Your task to perform on an android device: open app "Google Photos" (install if not already installed) Image 0: 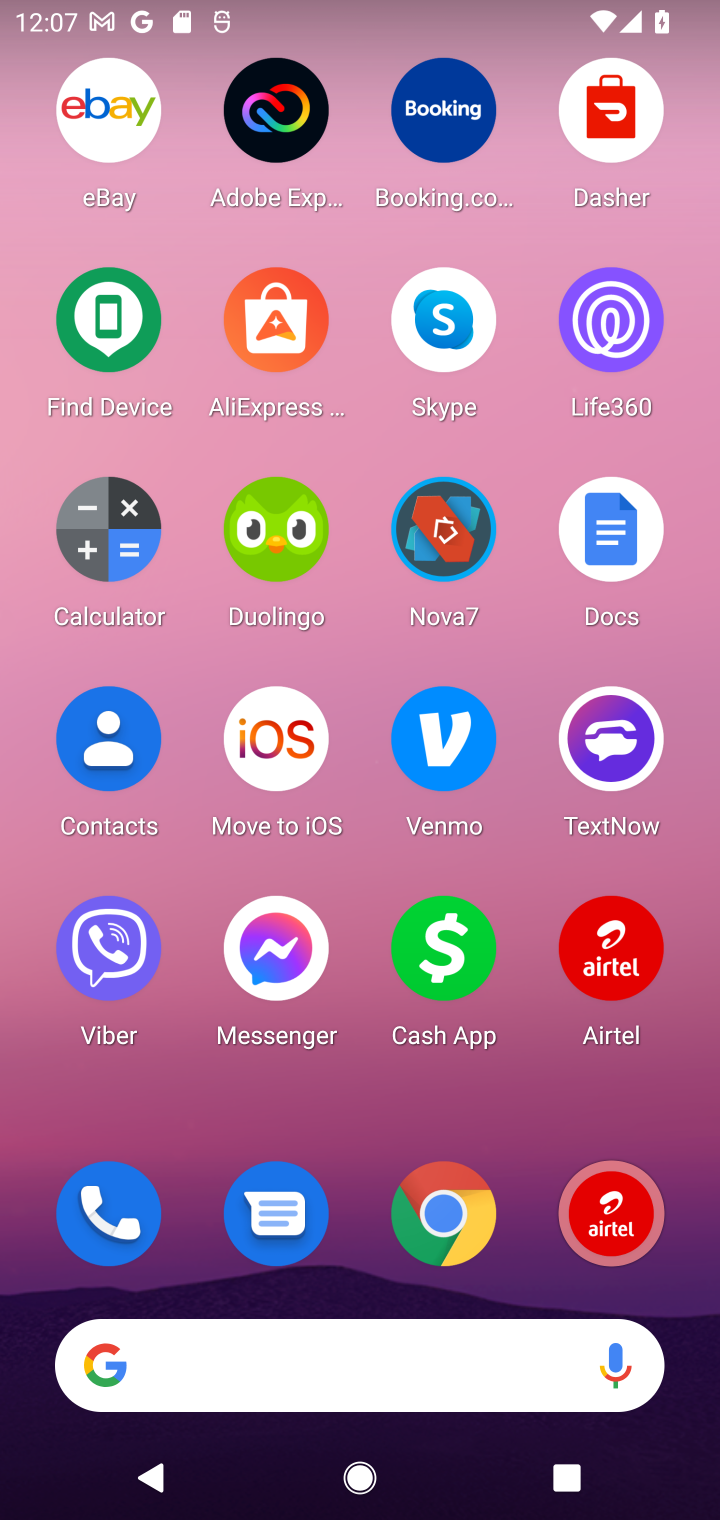
Step 0: drag from (289, 1357) to (517, 182)
Your task to perform on an android device: open app "Google Photos" (install if not already installed) Image 1: 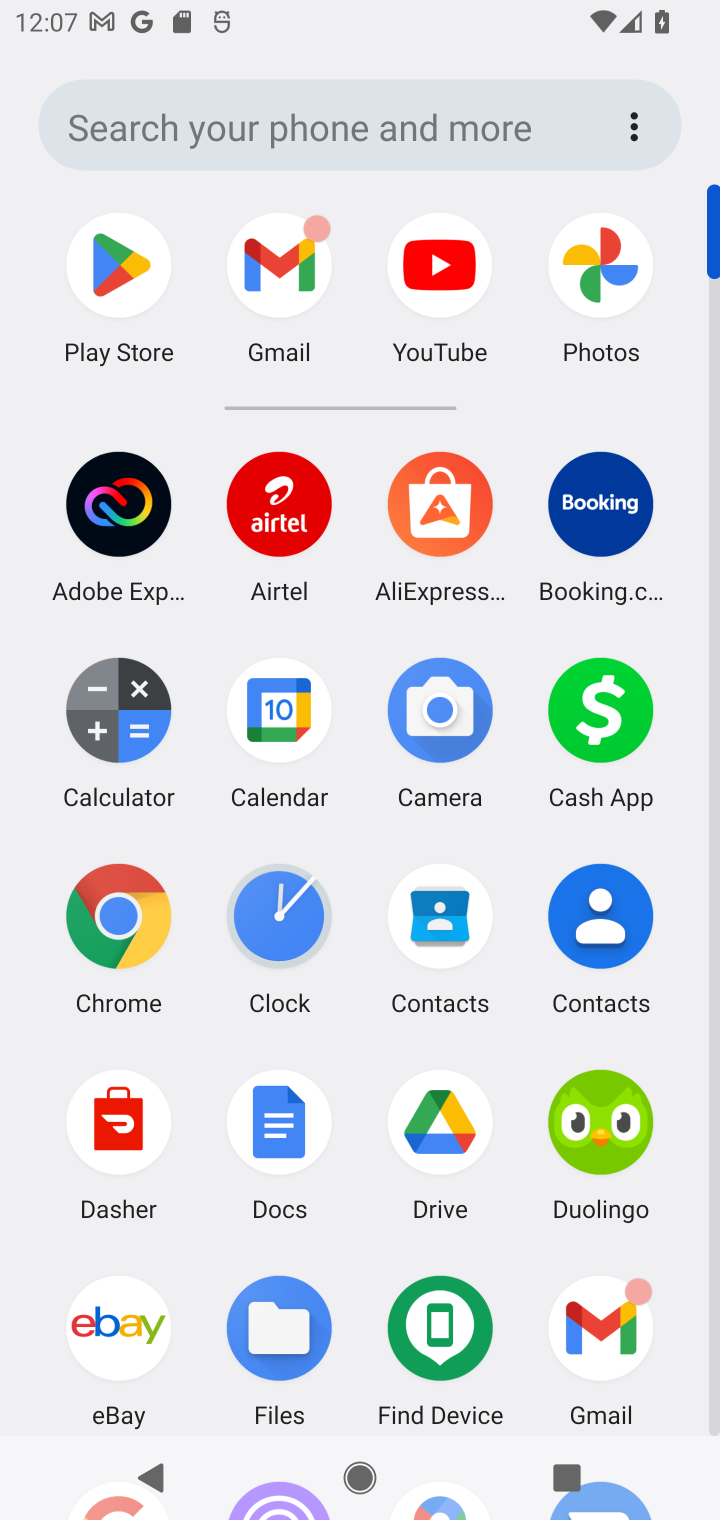
Step 1: click (115, 279)
Your task to perform on an android device: open app "Google Photos" (install if not already installed) Image 2: 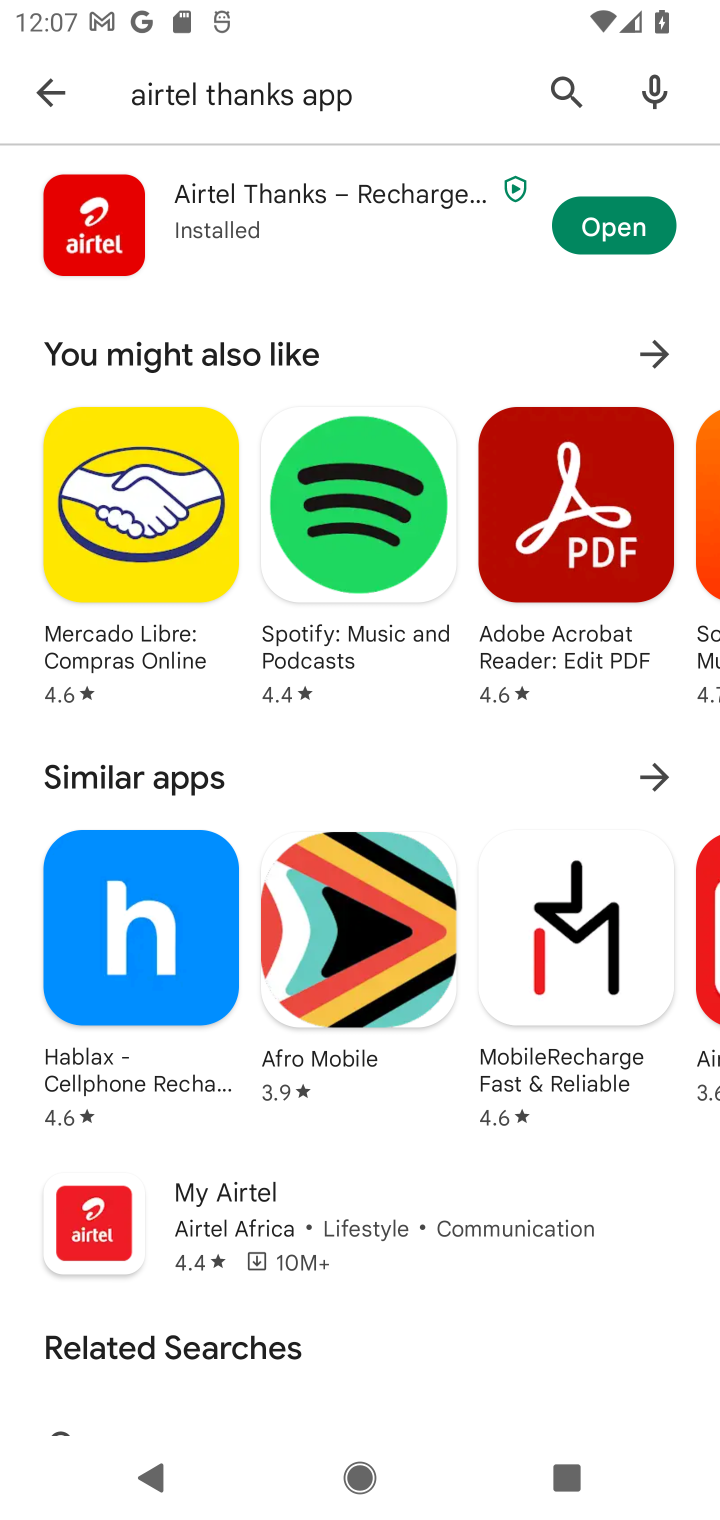
Step 2: press back button
Your task to perform on an android device: open app "Google Photos" (install if not already installed) Image 3: 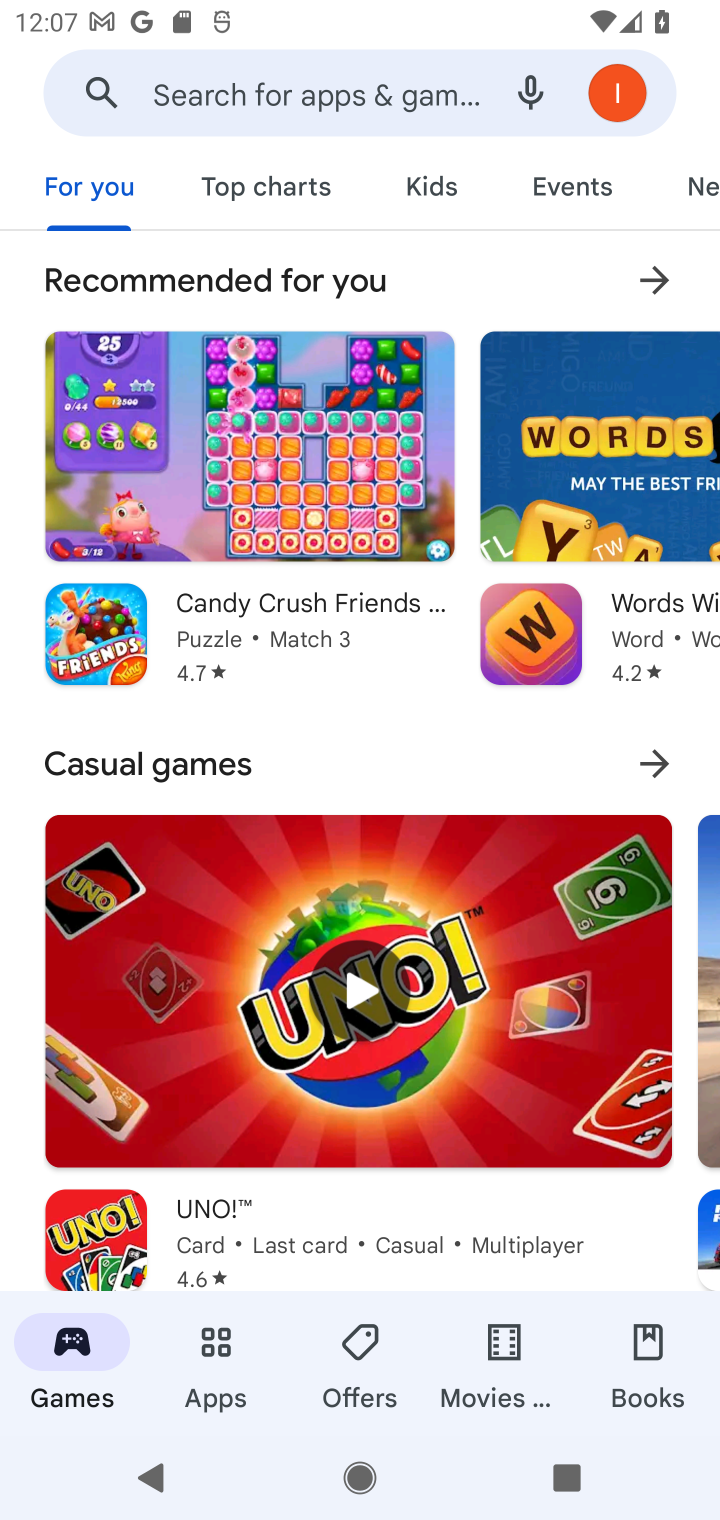
Step 3: click (332, 93)
Your task to perform on an android device: open app "Google Photos" (install if not already installed) Image 4: 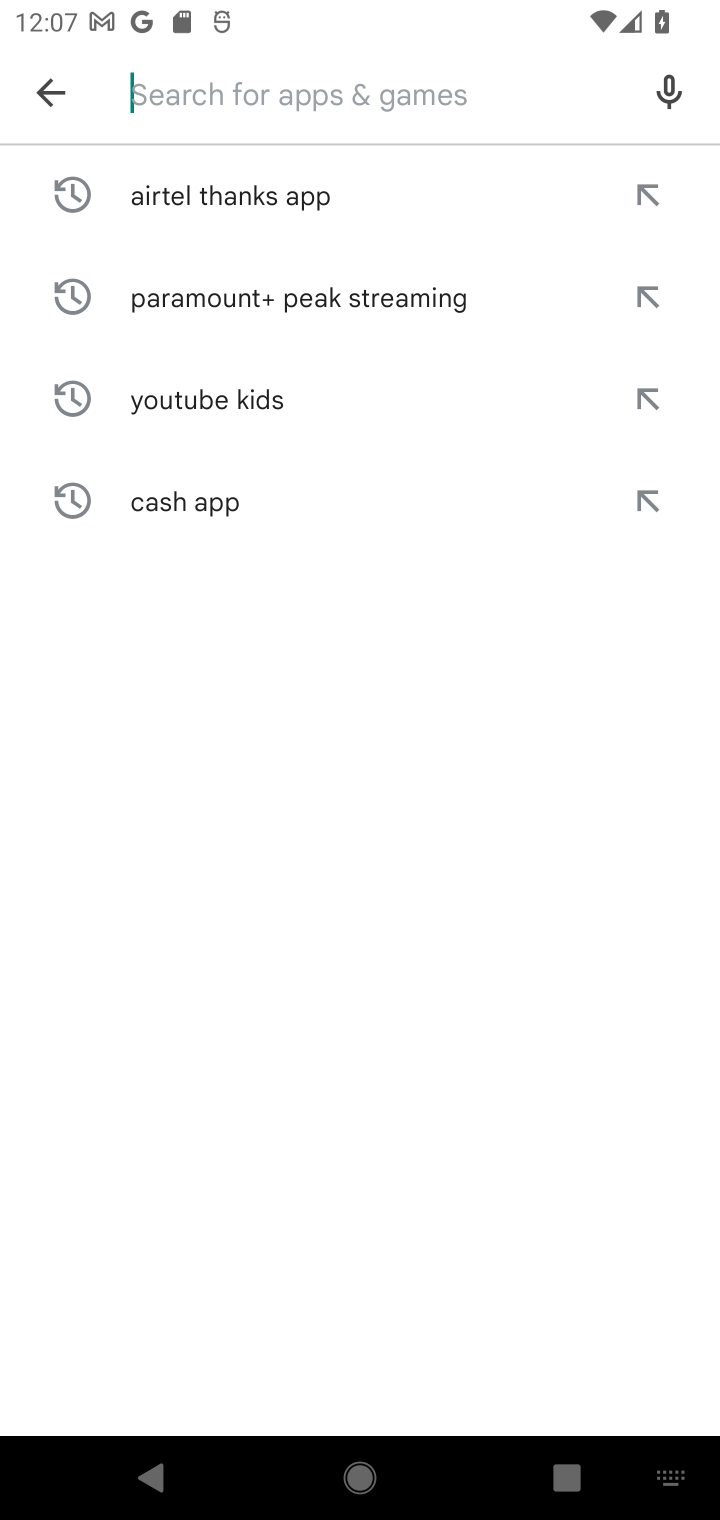
Step 4: click (179, 77)
Your task to perform on an android device: open app "Google Photos" (install if not already installed) Image 5: 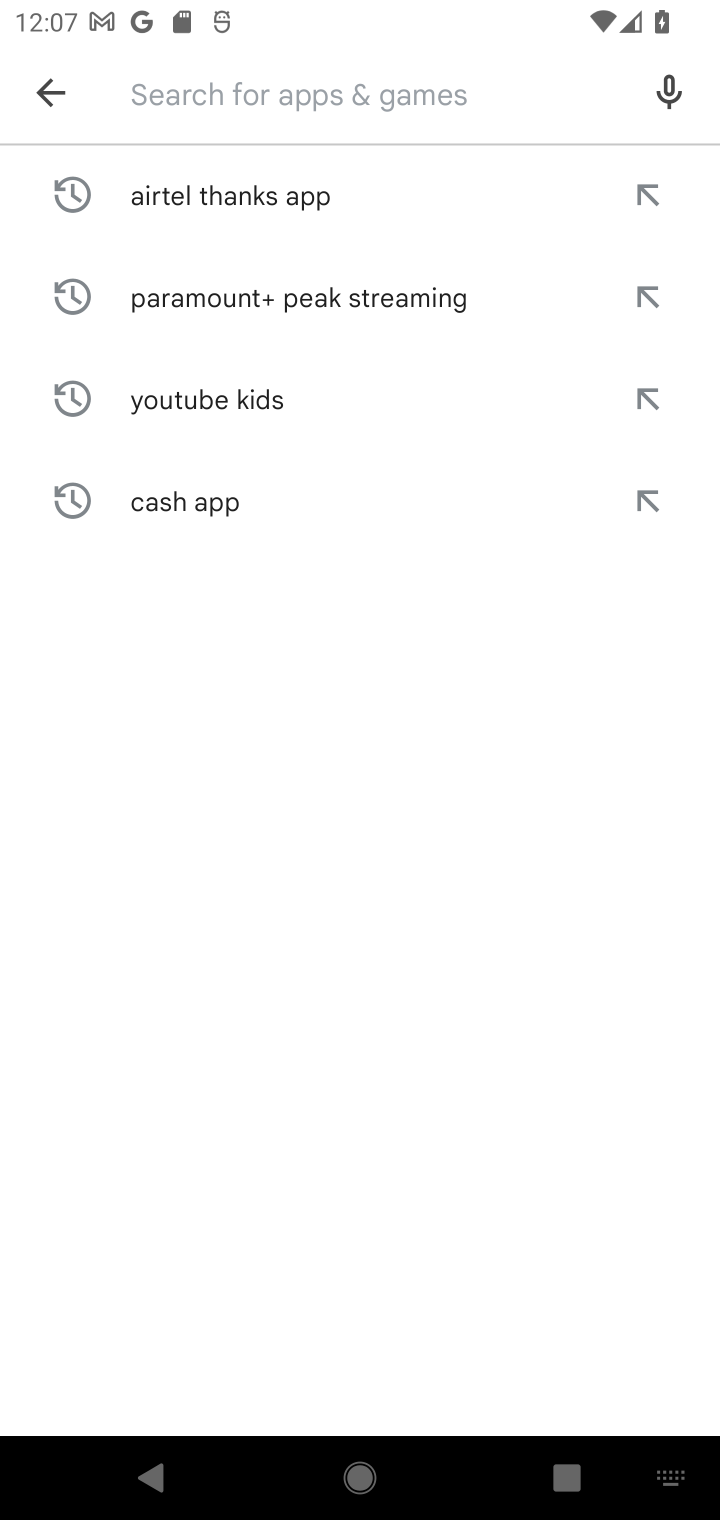
Step 5: type "Google Photos"
Your task to perform on an android device: open app "Google Photos" (install if not already installed) Image 6: 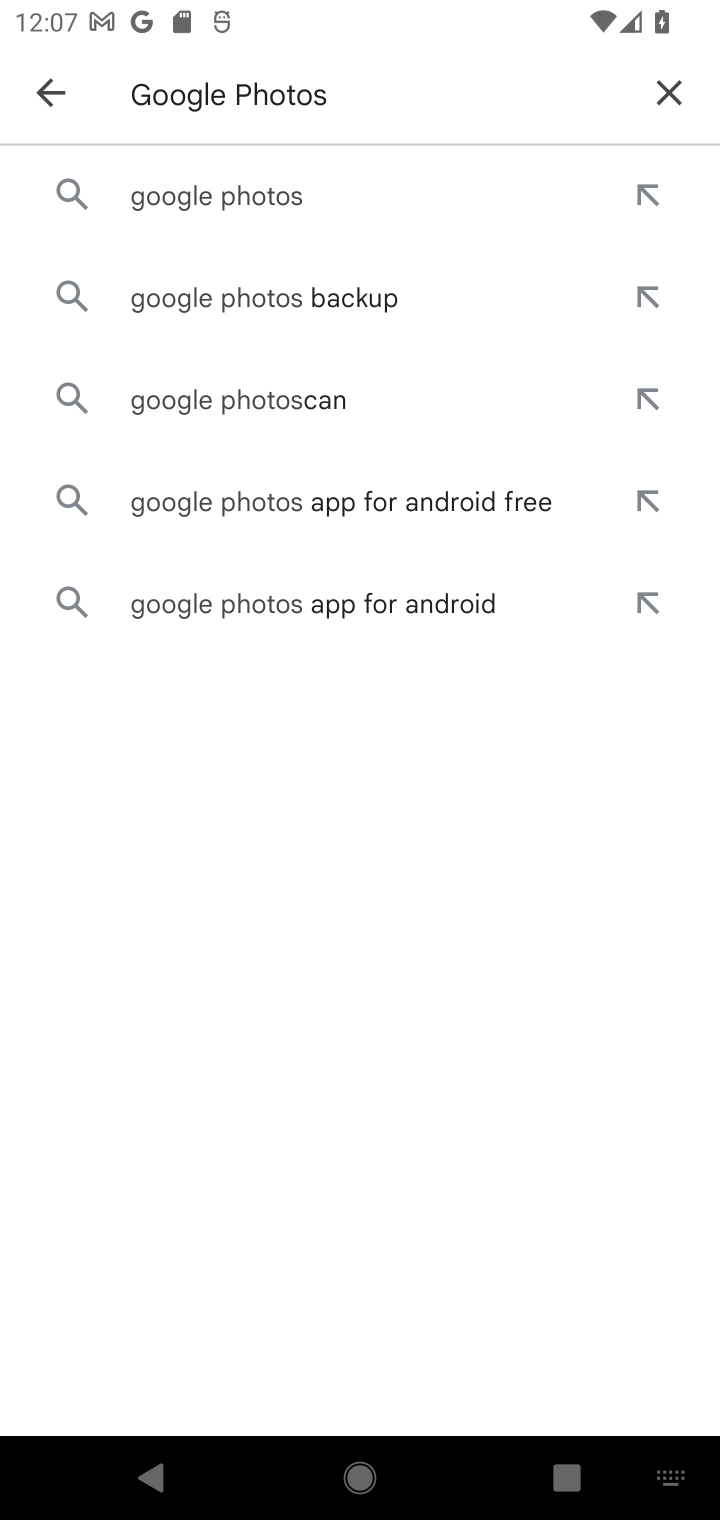
Step 6: click (207, 193)
Your task to perform on an android device: open app "Google Photos" (install if not already installed) Image 7: 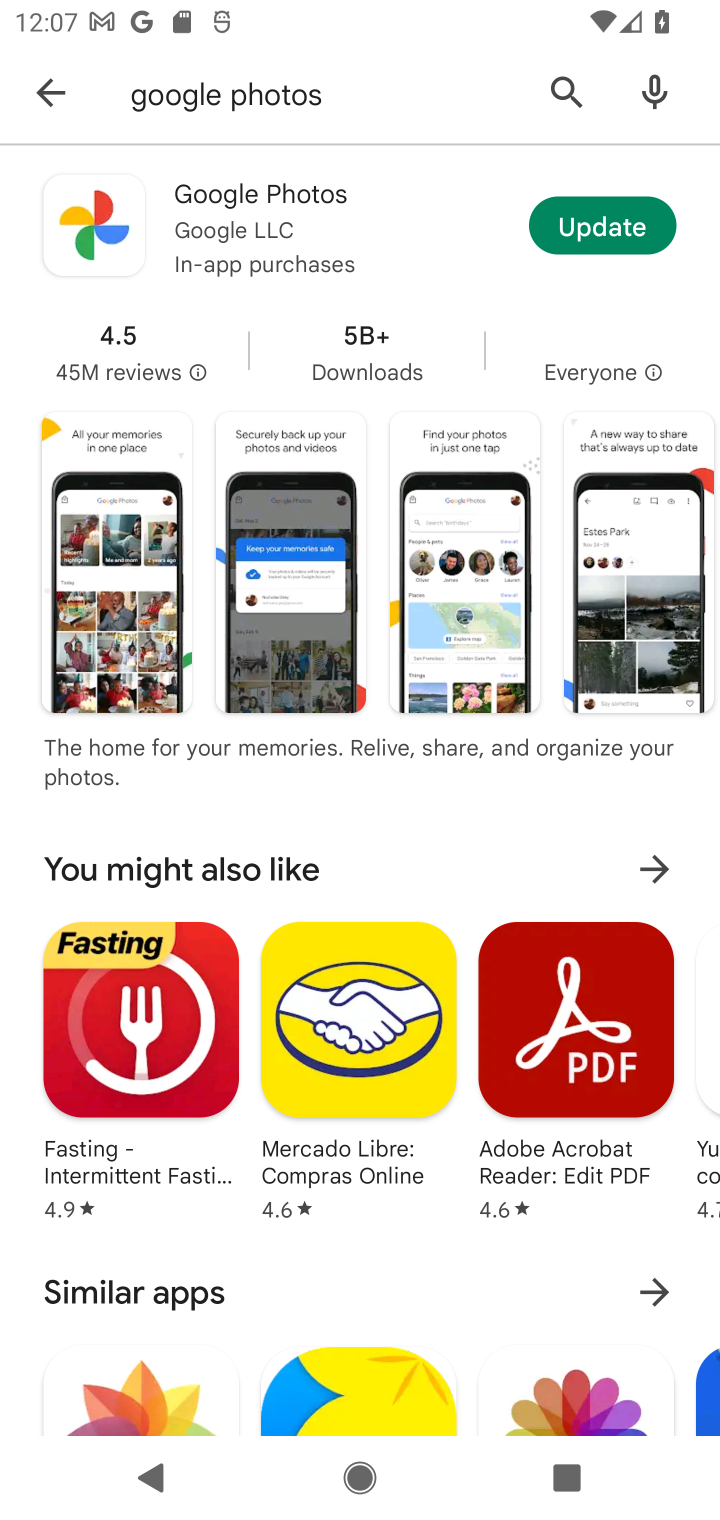
Step 7: click (245, 189)
Your task to perform on an android device: open app "Google Photos" (install if not already installed) Image 8: 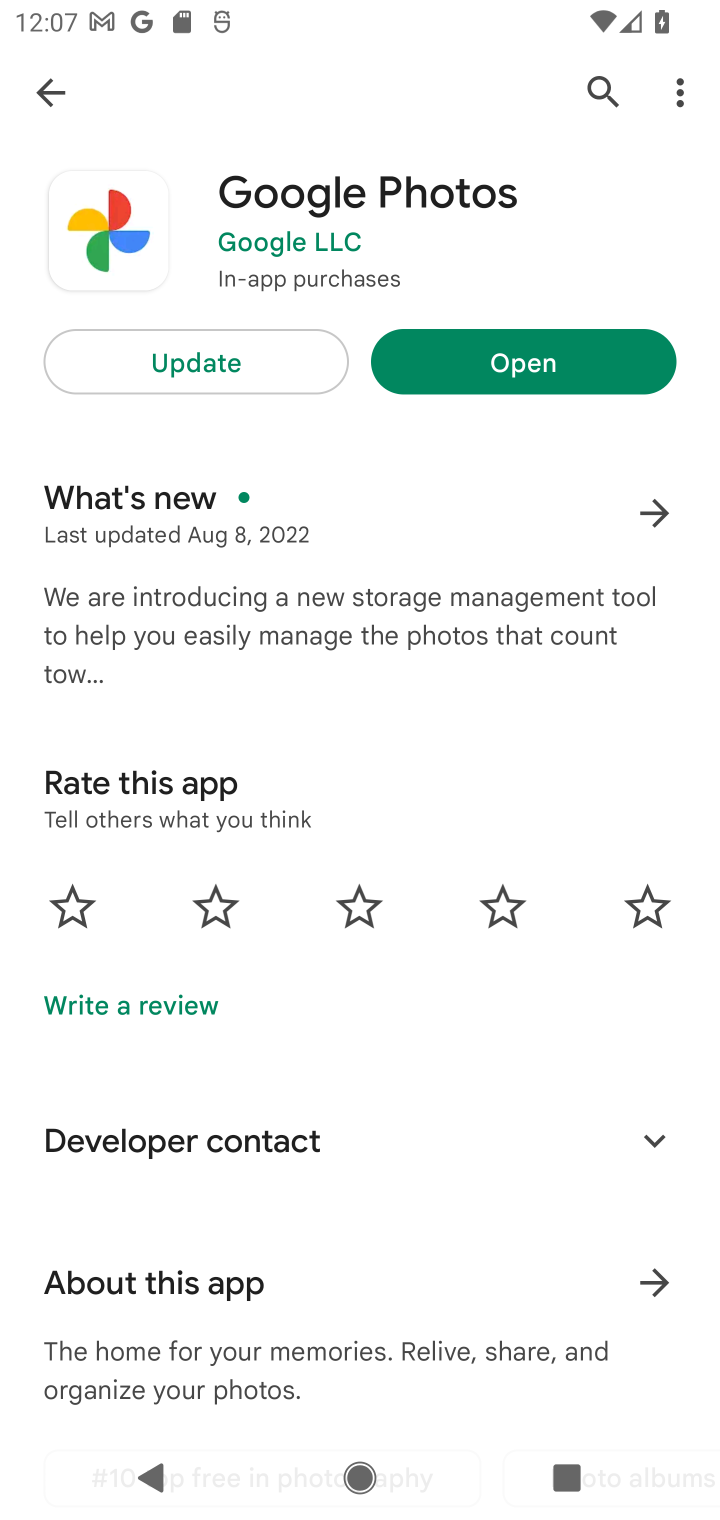
Step 8: click (485, 361)
Your task to perform on an android device: open app "Google Photos" (install if not already installed) Image 9: 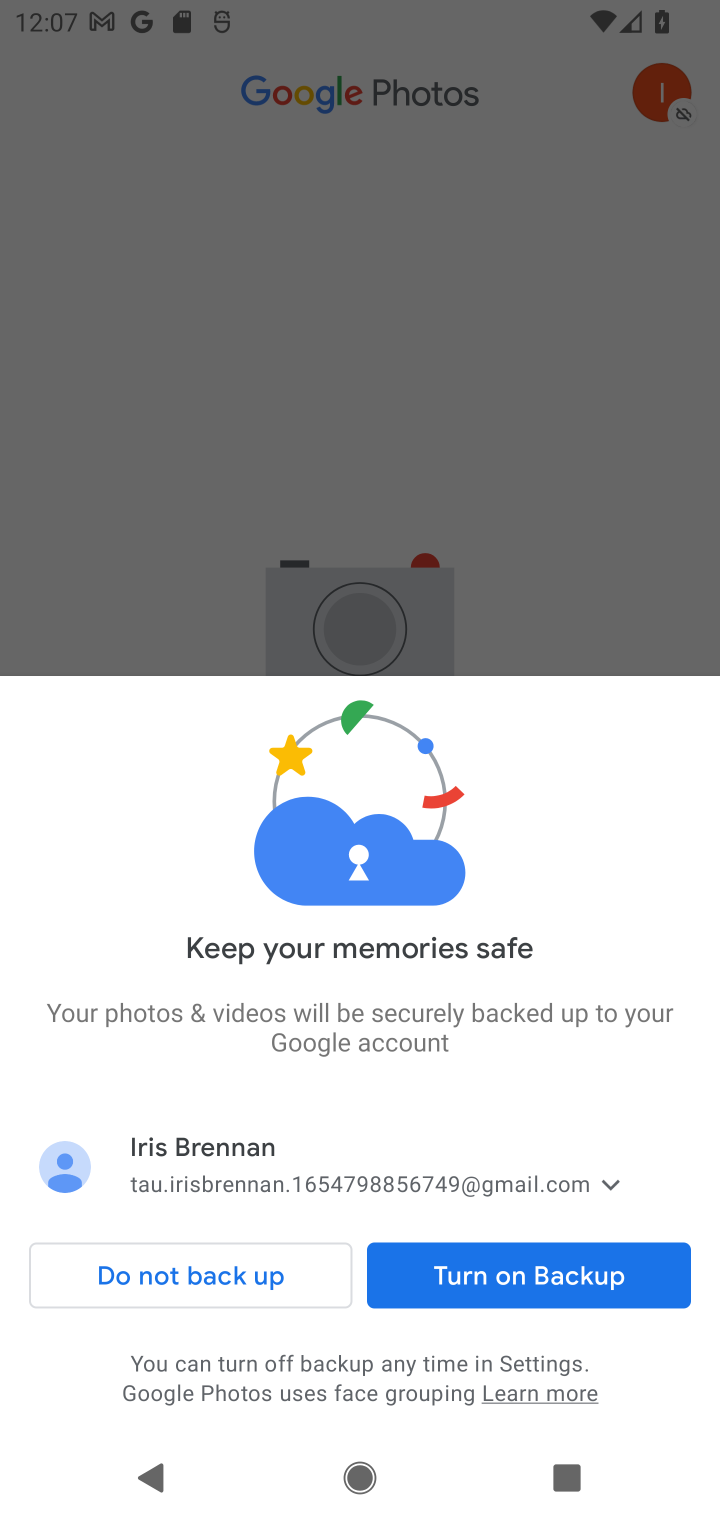
Step 9: task complete